Your task to perform on an android device: Is it going to rain this weekend? Image 0: 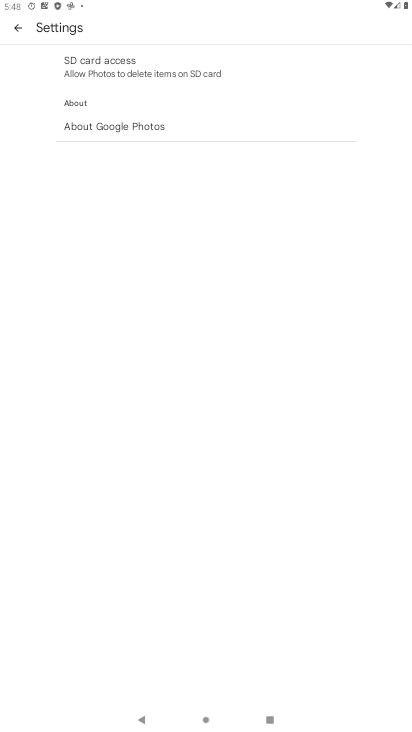
Step 0: press home button
Your task to perform on an android device: Is it going to rain this weekend? Image 1: 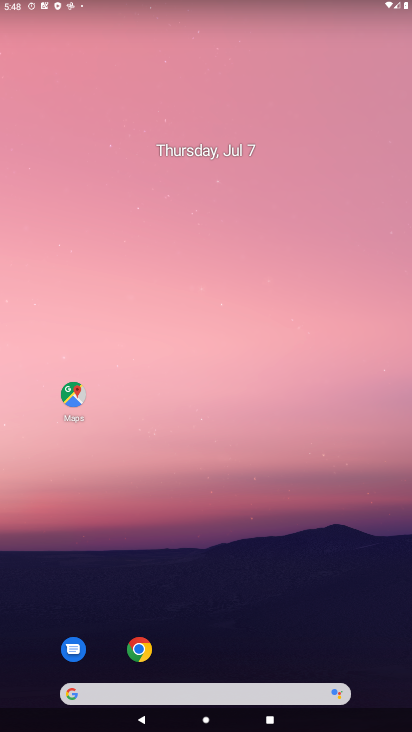
Step 1: drag from (385, 610) to (128, 9)
Your task to perform on an android device: Is it going to rain this weekend? Image 2: 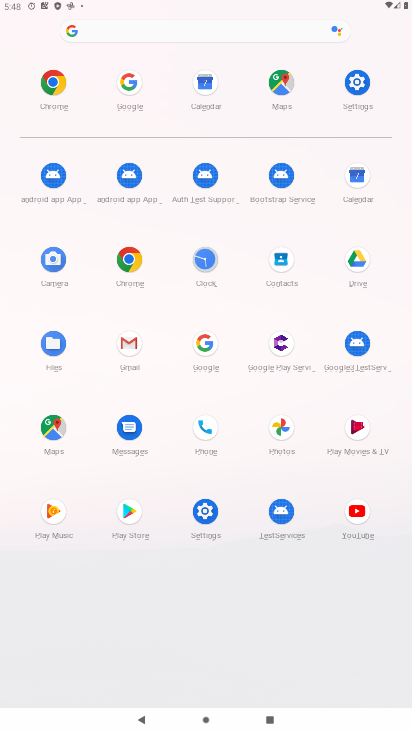
Step 2: click (195, 340)
Your task to perform on an android device: Is it going to rain this weekend? Image 3: 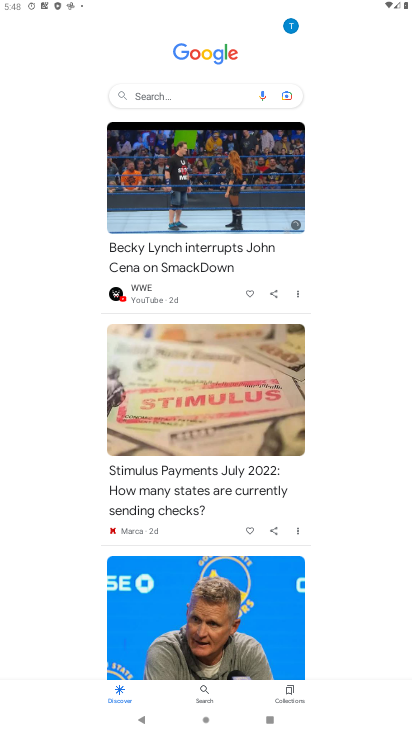
Step 3: click (182, 92)
Your task to perform on an android device: Is it going to rain this weekend? Image 4: 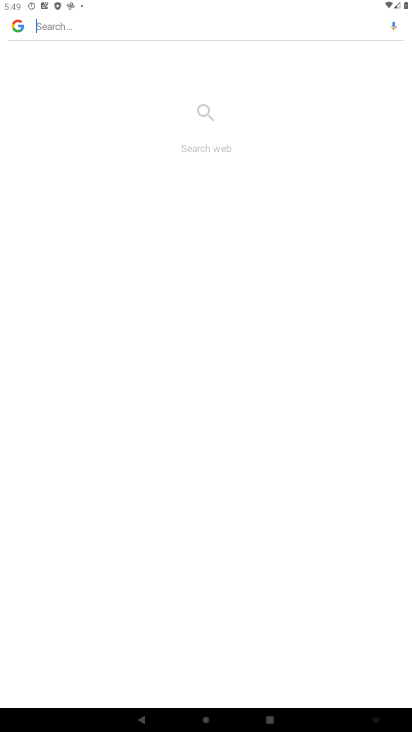
Step 4: type "Is it going to rain this weekend?"
Your task to perform on an android device: Is it going to rain this weekend? Image 5: 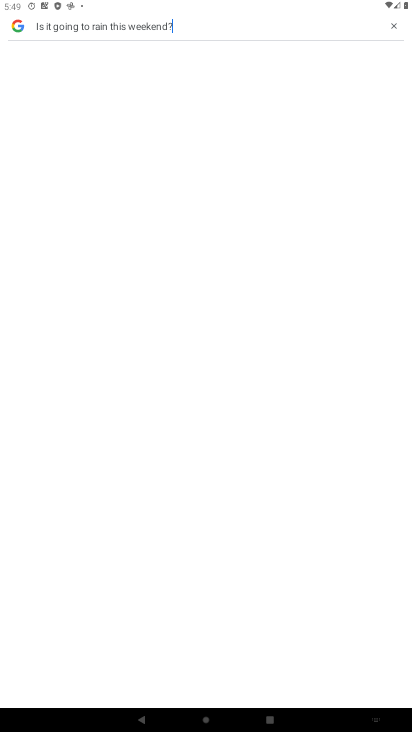
Step 5: task complete